Your task to perform on an android device: check google app version Image 0: 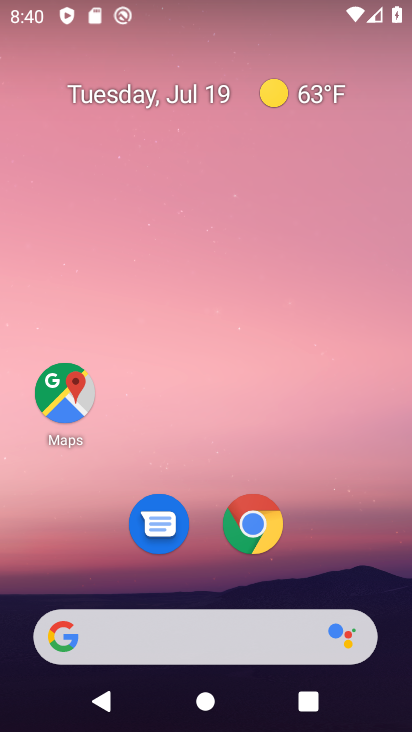
Step 0: click (398, 358)
Your task to perform on an android device: check google app version Image 1: 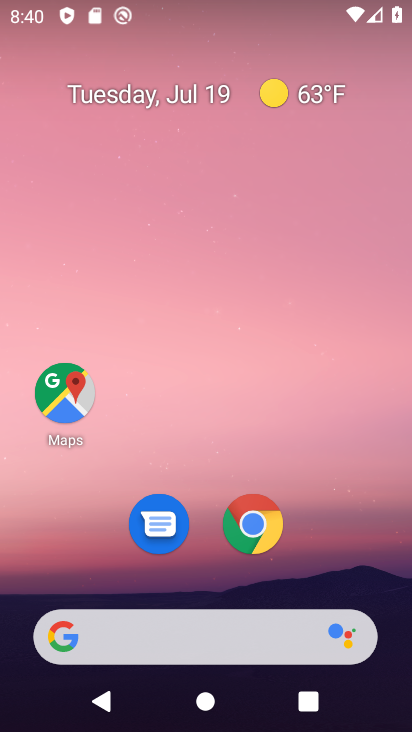
Step 1: drag from (208, 576) to (252, 506)
Your task to perform on an android device: check google app version Image 2: 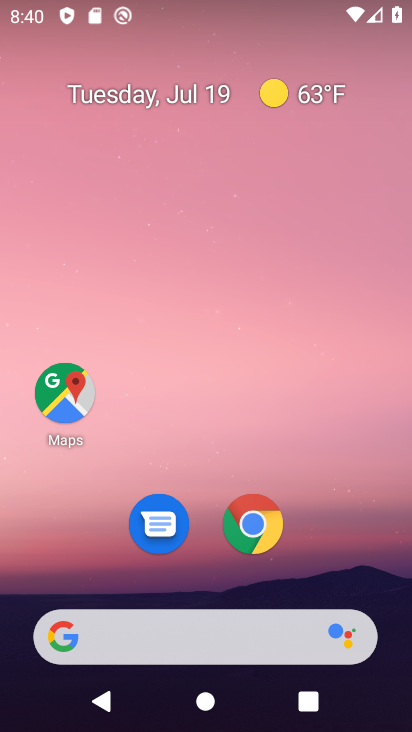
Step 2: drag from (195, 644) to (342, 320)
Your task to perform on an android device: check google app version Image 3: 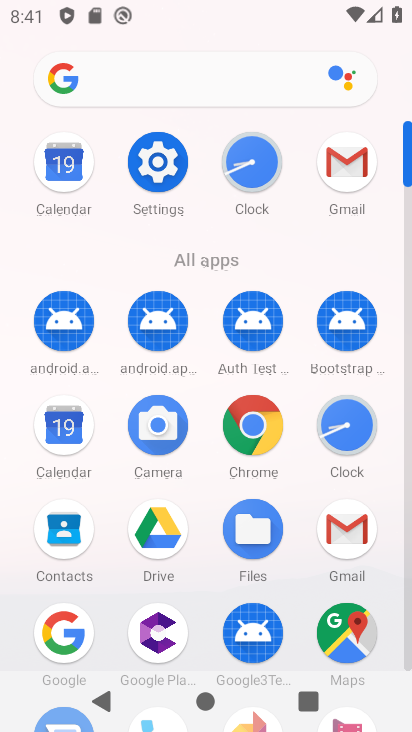
Step 3: click (72, 631)
Your task to perform on an android device: check google app version Image 4: 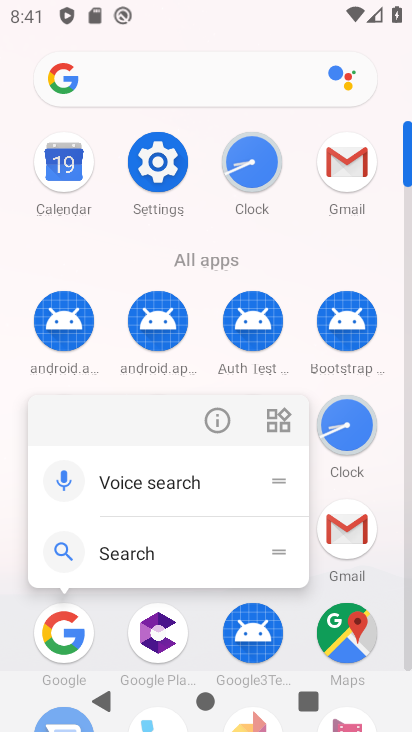
Step 4: click (218, 424)
Your task to perform on an android device: check google app version Image 5: 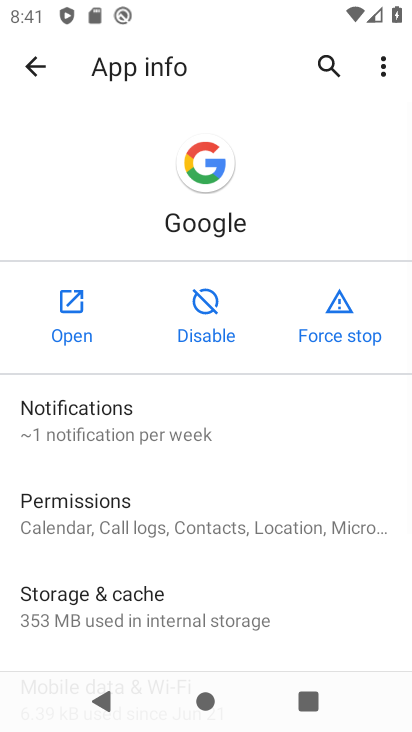
Step 5: drag from (199, 581) to (366, 149)
Your task to perform on an android device: check google app version Image 6: 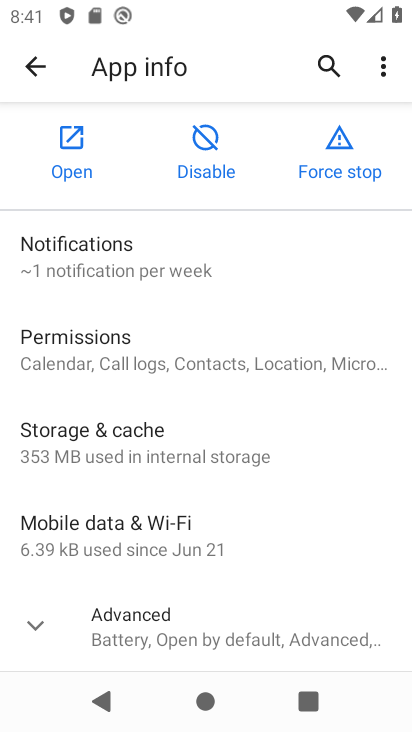
Step 6: click (102, 618)
Your task to perform on an android device: check google app version Image 7: 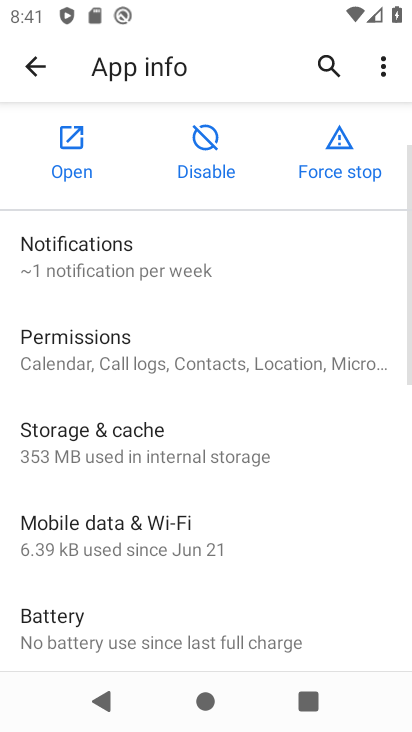
Step 7: task complete